Your task to perform on an android device: open device folders in google photos Image 0: 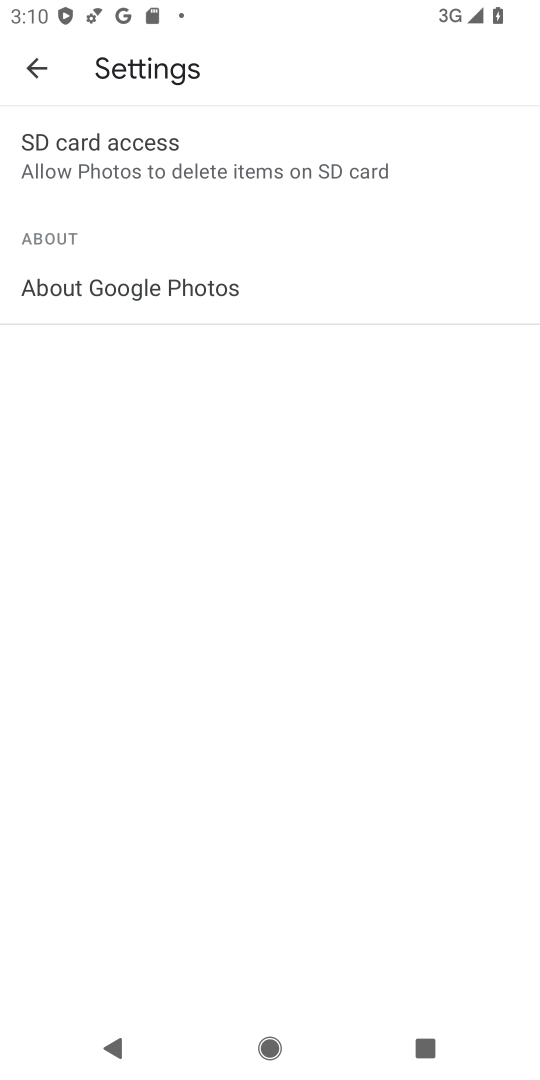
Step 0: press back button
Your task to perform on an android device: open device folders in google photos Image 1: 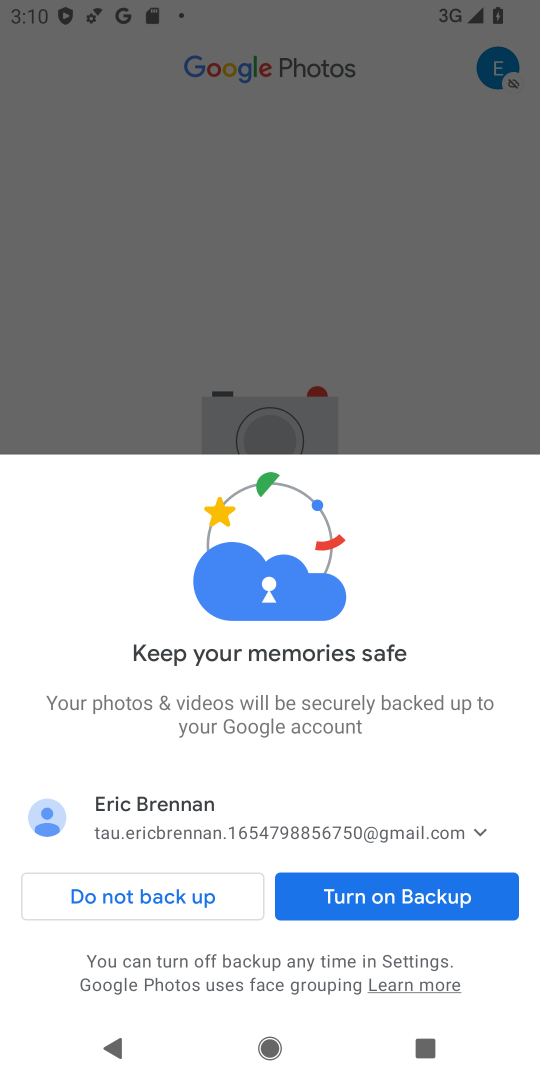
Step 1: press home button
Your task to perform on an android device: open device folders in google photos Image 2: 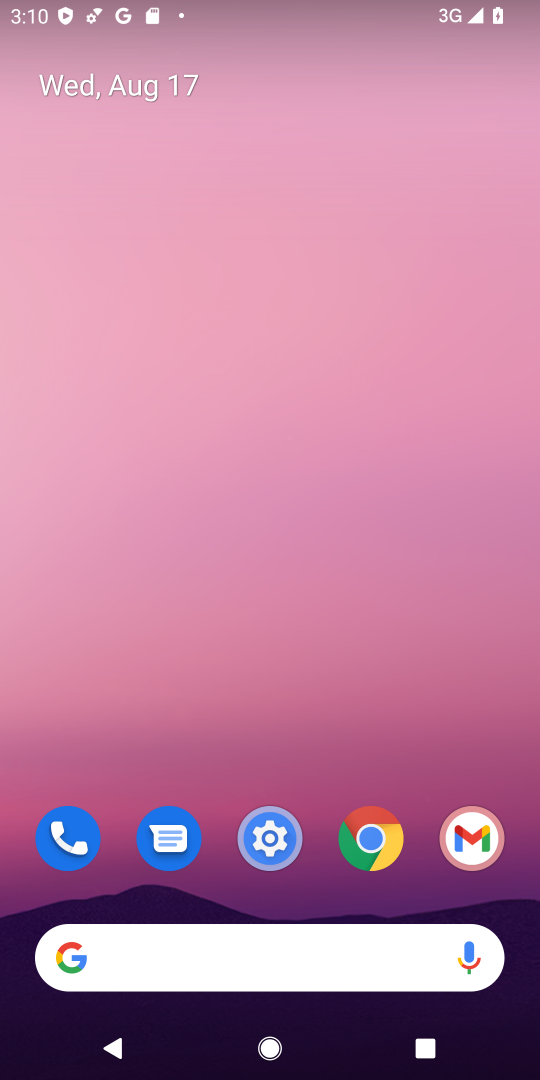
Step 2: drag from (284, 888) to (360, 157)
Your task to perform on an android device: open device folders in google photos Image 3: 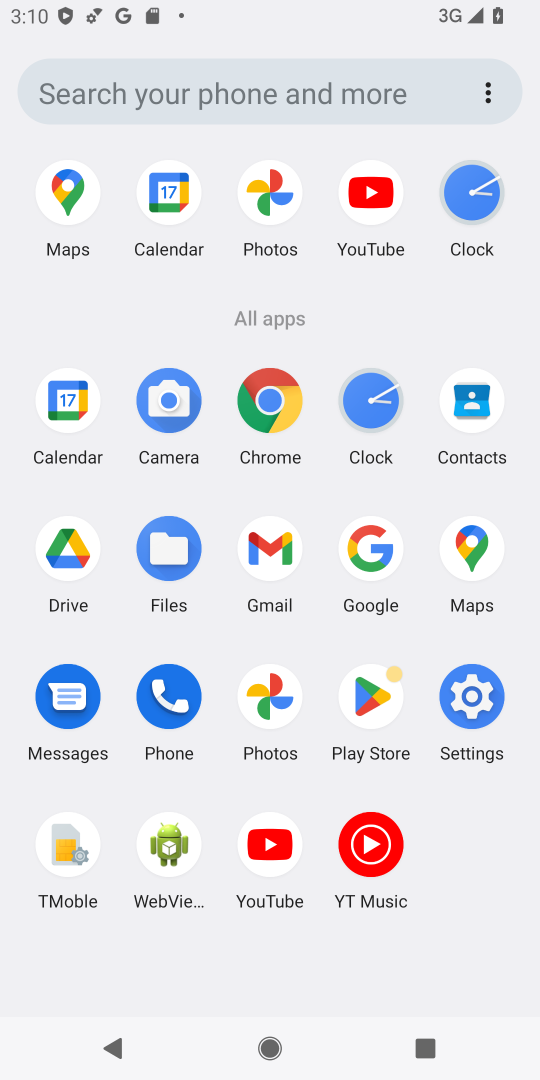
Step 3: click (279, 194)
Your task to perform on an android device: open device folders in google photos Image 4: 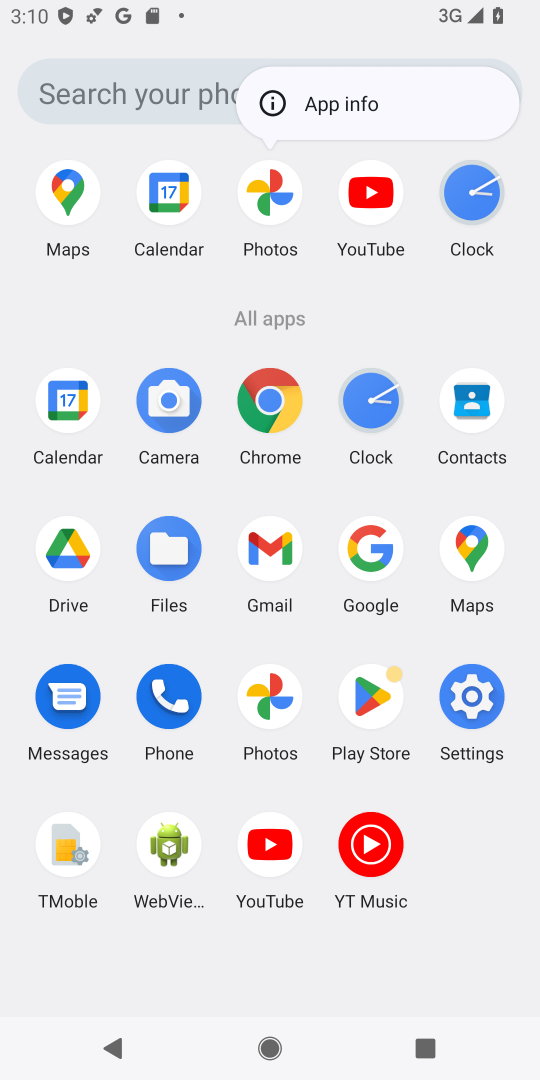
Step 4: click (268, 191)
Your task to perform on an android device: open device folders in google photos Image 5: 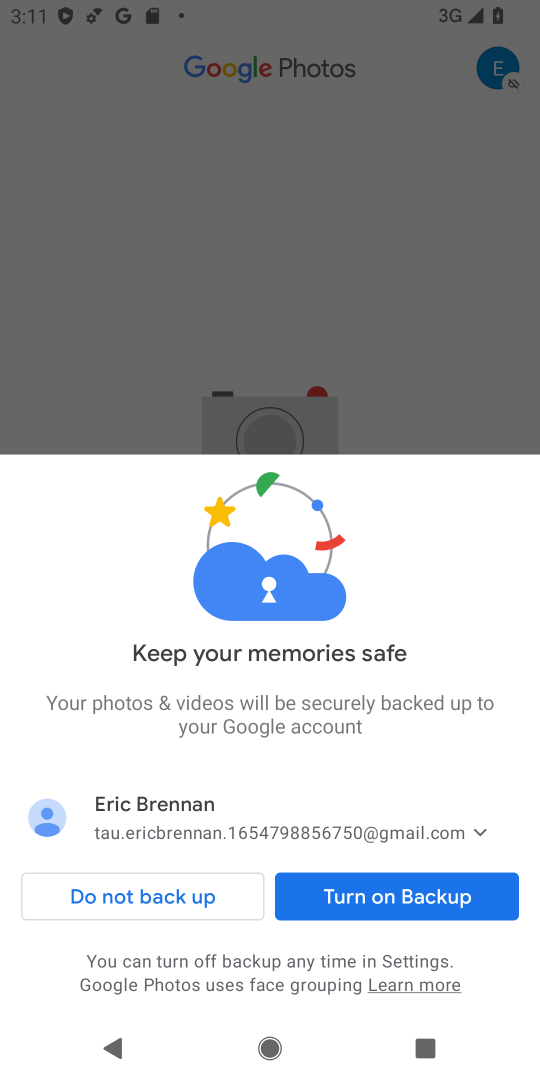
Step 5: click (160, 909)
Your task to perform on an android device: open device folders in google photos Image 6: 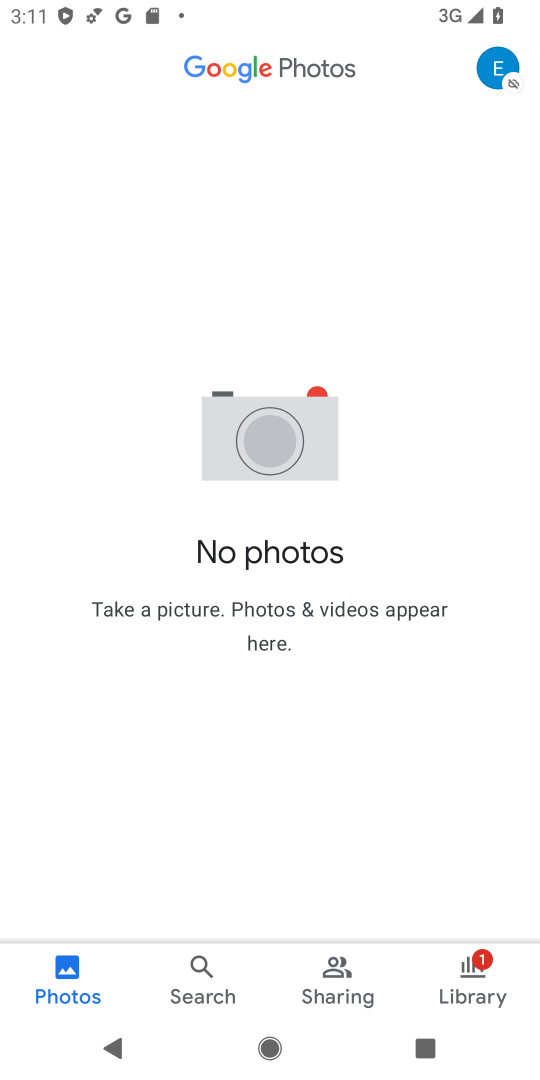
Step 6: click (492, 73)
Your task to perform on an android device: open device folders in google photos Image 7: 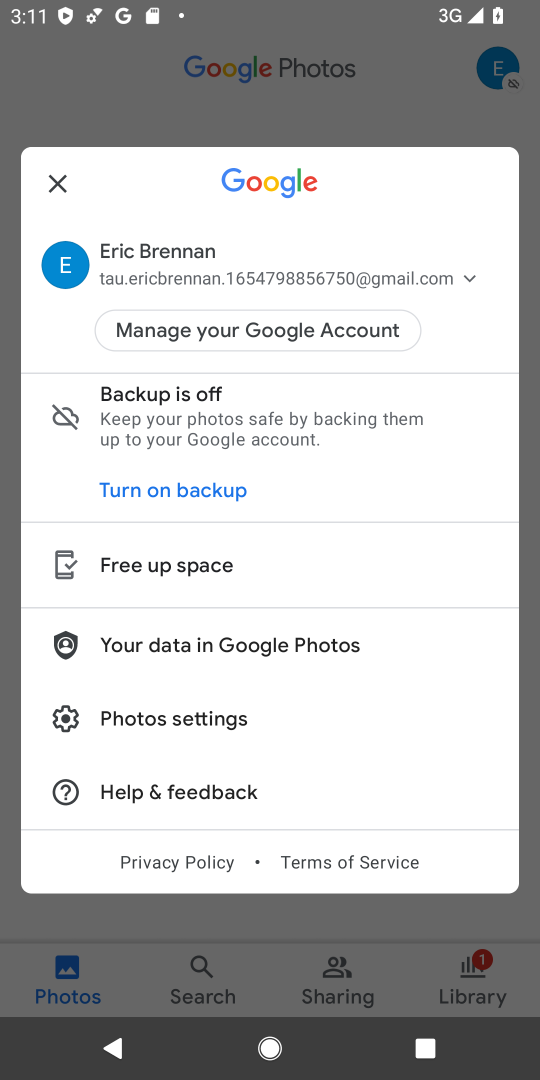
Step 7: task complete